Your task to perform on an android device: turn off priority inbox in the gmail app Image 0: 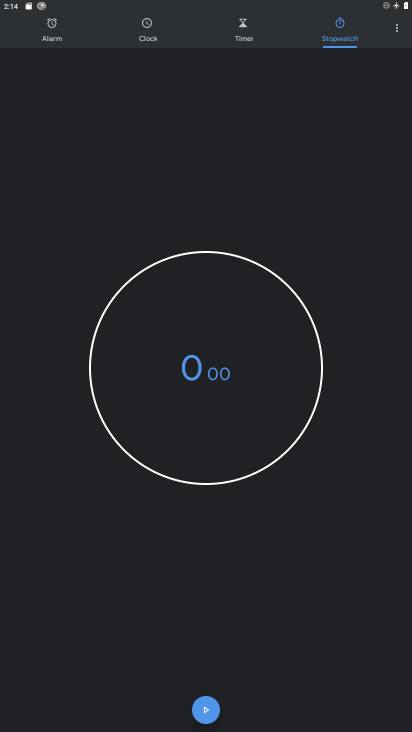
Step 0: press home button
Your task to perform on an android device: turn off priority inbox in the gmail app Image 1: 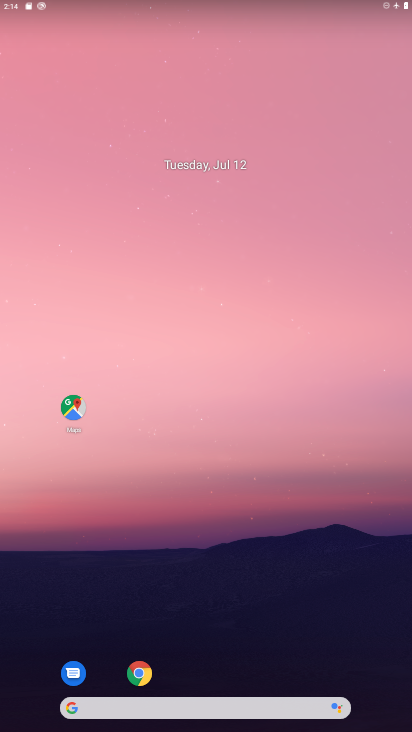
Step 1: drag from (240, 633) to (245, 287)
Your task to perform on an android device: turn off priority inbox in the gmail app Image 2: 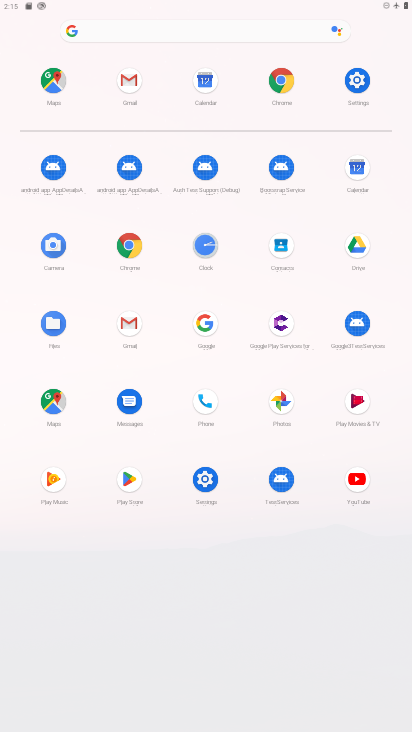
Step 2: click (130, 321)
Your task to perform on an android device: turn off priority inbox in the gmail app Image 3: 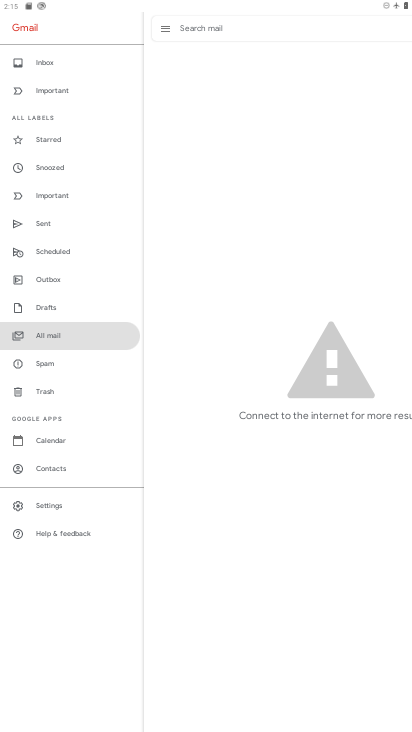
Step 3: click (48, 503)
Your task to perform on an android device: turn off priority inbox in the gmail app Image 4: 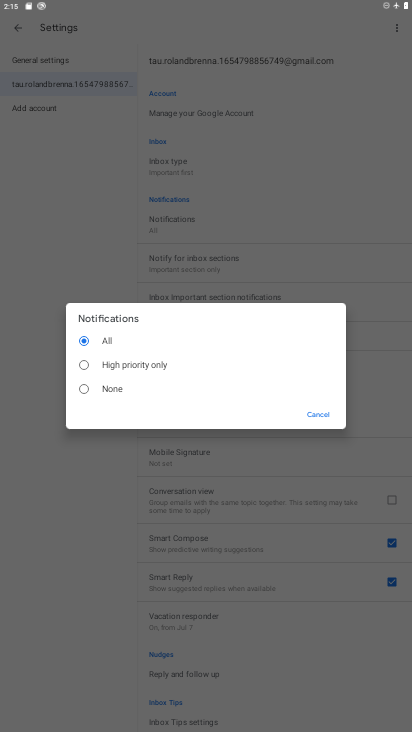
Step 4: click (310, 394)
Your task to perform on an android device: turn off priority inbox in the gmail app Image 5: 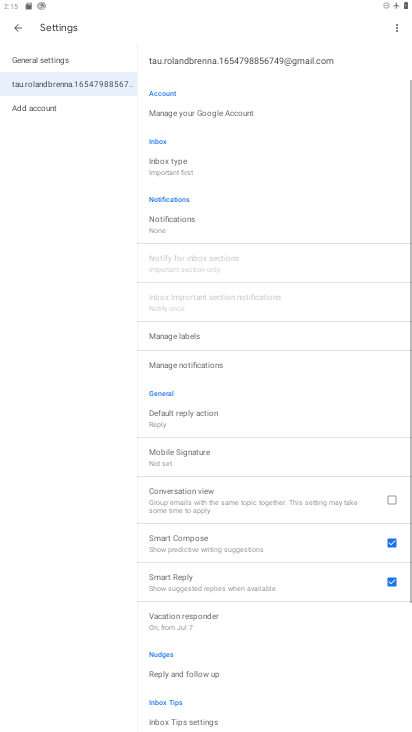
Step 5: click (210, 165)
Your task to perform on an android device: turn off priority inbox in the gmail app Image 6: 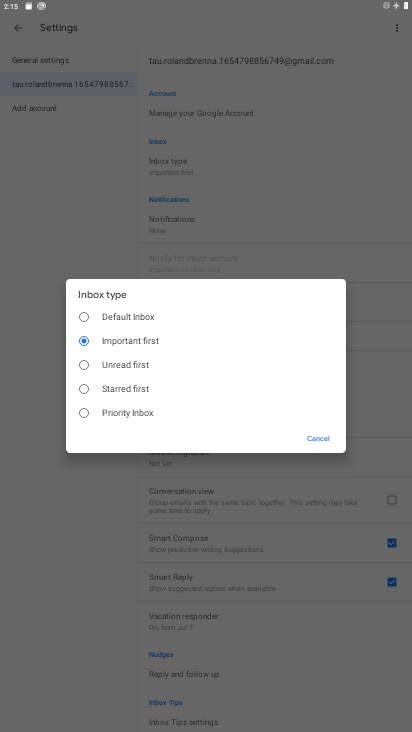
Step 6: click (121, 302)
Your task to perform on an android device: turn off priority inbox in the gmail app Image 7: 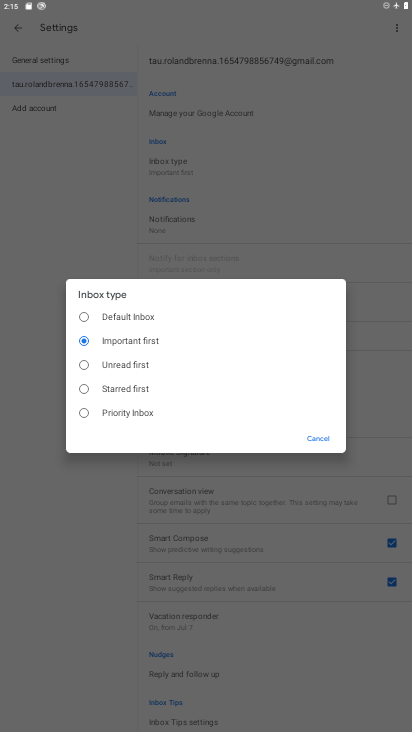
Step 7: click (143, 311)
Your task to perform on an android device: turn off priority inbox in the gmail app Image 8: 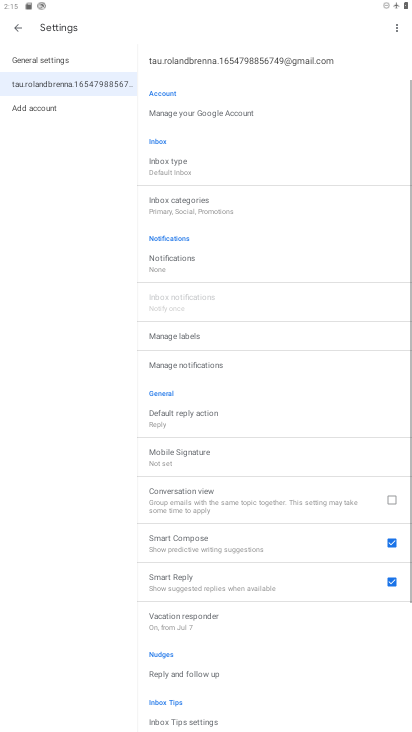
Step 8: task complete